Your task to perform on an android device: turn notification dots on Image 0: 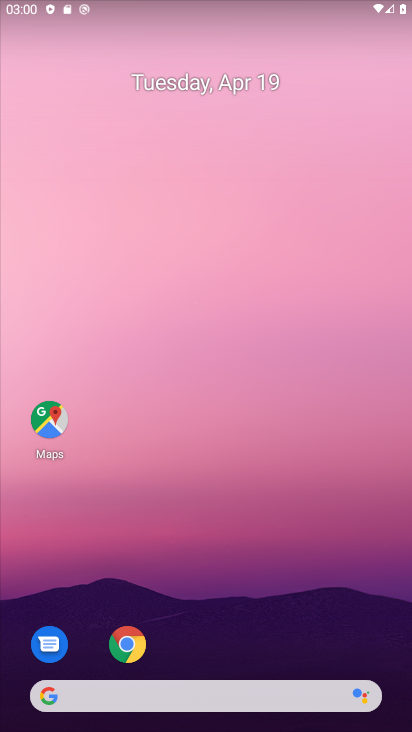
Step 0: drag from (371, 644) to (302, 215)
Your task to perform on an android device: turn notification dots on Image 1: 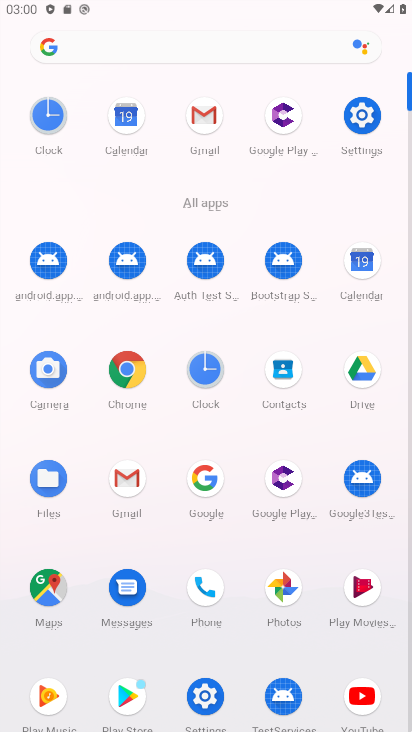
Step 1: click (201, 696)
Your task to perform on an android device: turn notification dots on Image 2: 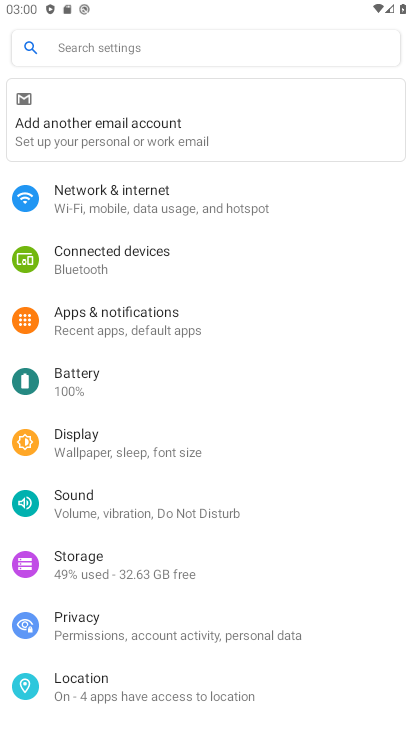
Step 2: click (127, 317)
Your task to perform on an android device: turn notification dots on Image 3: 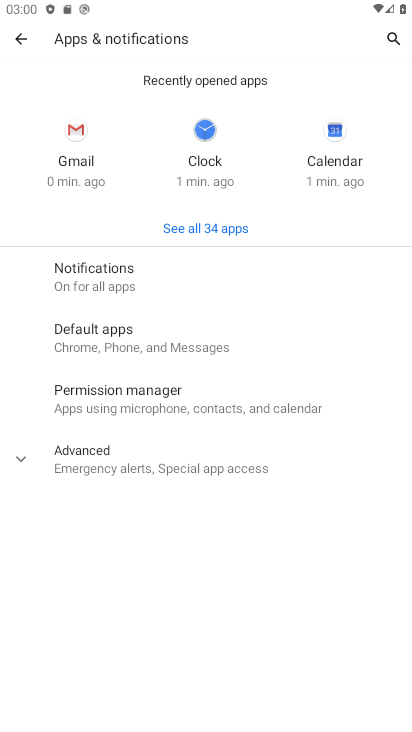
Step 3: click (100, 281)
Your task to perform on an android device: turn notification dots on Image 4: 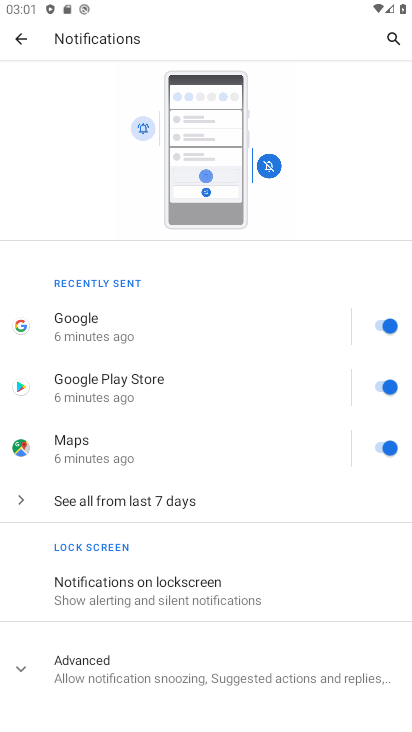
Step 4: drag from (311, 616) to (308, 292)
Your task to perform on an android device: turn notification dots on Image 5: 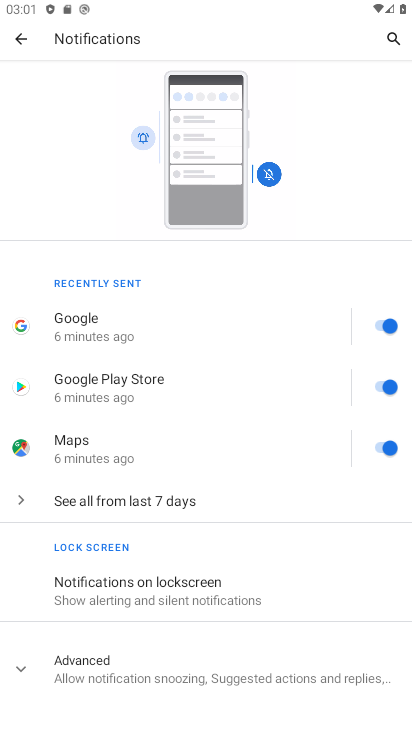
Step 5: click (47, 664)
Your task to perform on an android device: turn notification dots on Image 6: 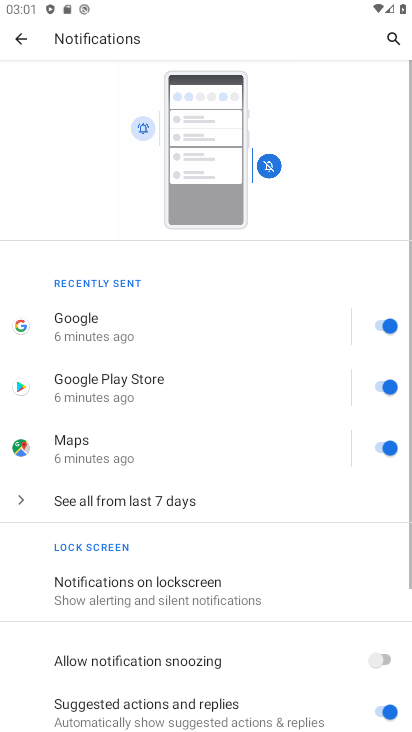
Step 6: task complete